Your task to perform on an android device: search for starred emails in the gmail app Image 0: 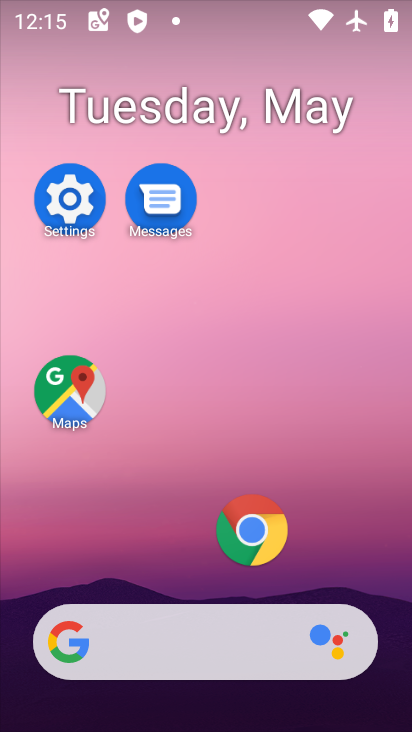
Step 0: drag from (142, 577) to (226, 276)
Your task to perform on an android device: search for starred emails in the gmail app Image 1: 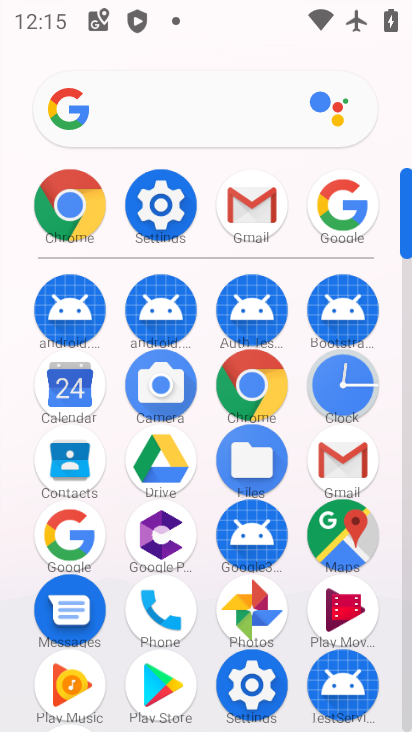
Step 1: click (363, 470)
Your task to perform on an android device: search for starred emails in the gmail app Image 2: 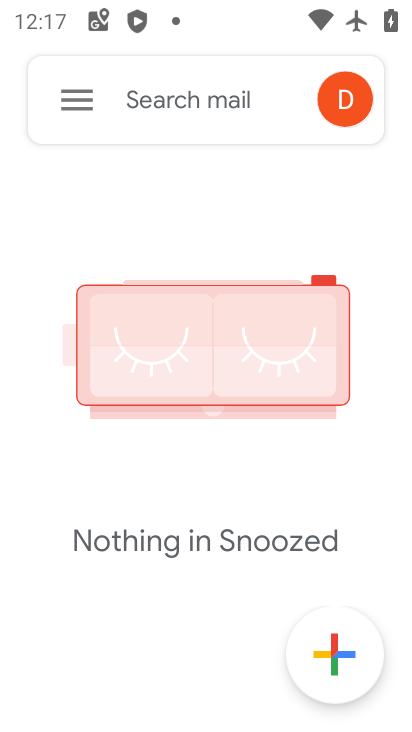
Step 2: task complete